Your task to perform on an android device: refresh tabs in the chrome app Image 0: 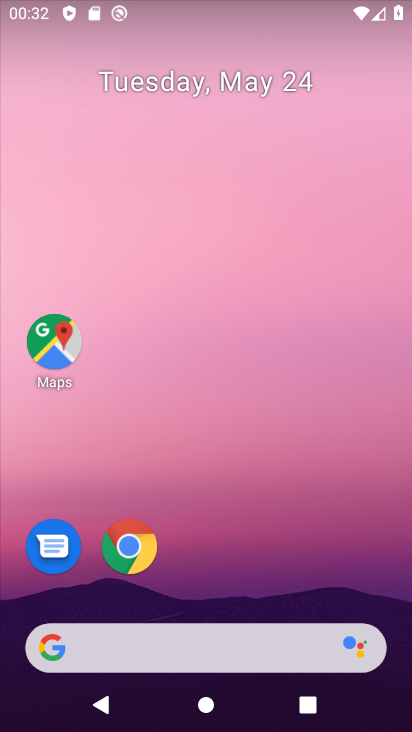
Step 0: drag from (252, 634) to (342, 25)
Your task to perform on an android device: refresh tabs in the chrome app Image 1: 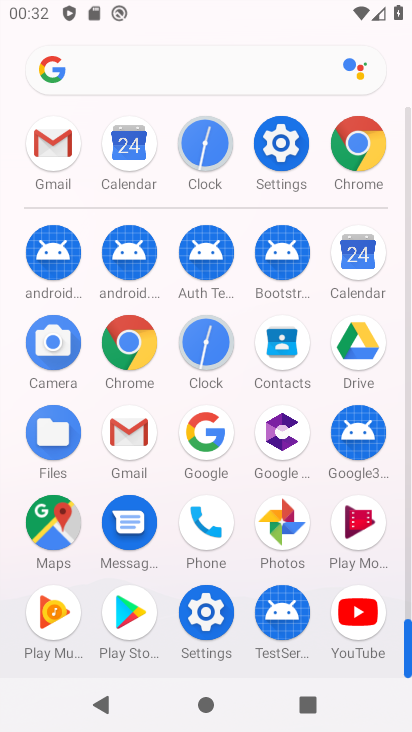
Step 1: click (139, 333)
Your task to perform on an android device: refresh tabs in the chrome app Image 2: 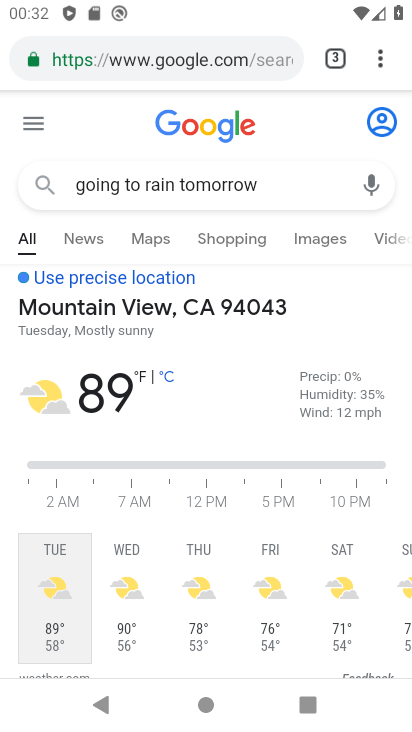
Step 2: click (376, 52)
Your task to perform on an android device: refresh tabs in the chrome app Image 3: 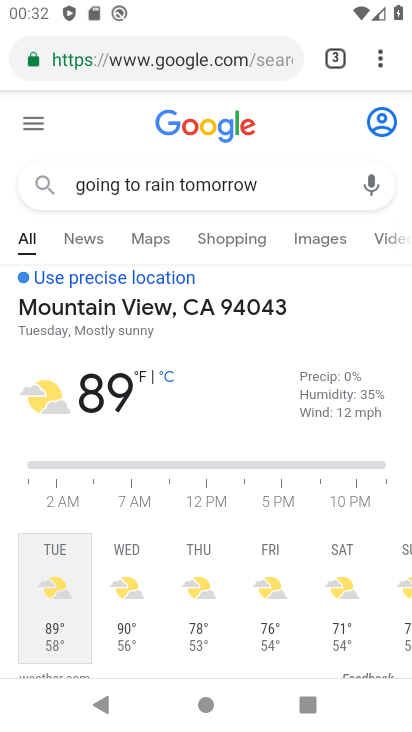
Step 3: task complete